Your task to perform on an android device: check storage Image 0: 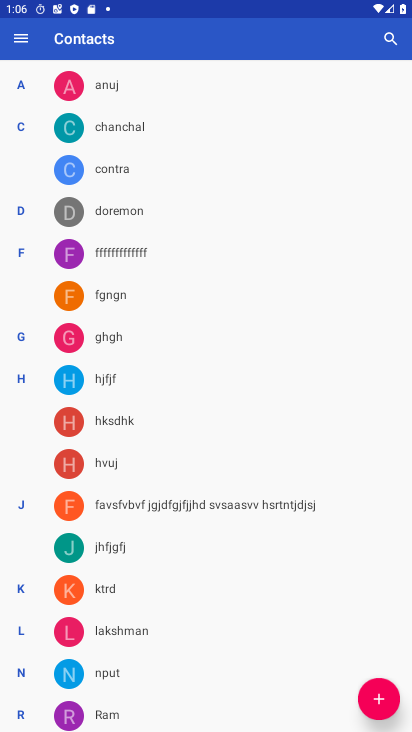
Step 0: press home button
Your task to perform on an android device: check storage Image 1: 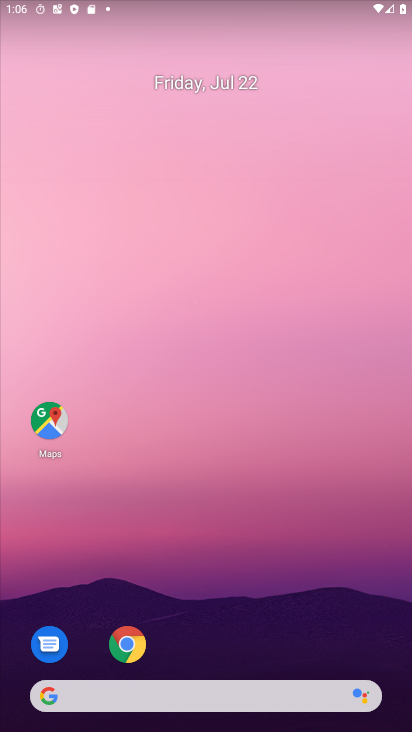
Step 1: drag from (171, 675) to (214, 139)
Your task to perform on an android device: check storage Image 2: 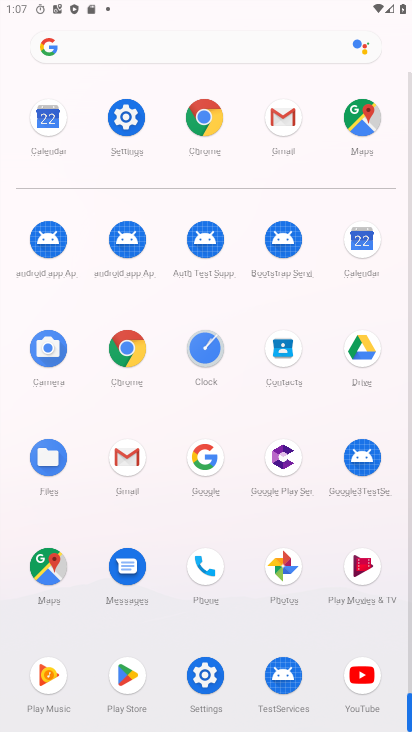
Step 2: click (133, 141)
Your task to perform on an android device: check storage Image 3: 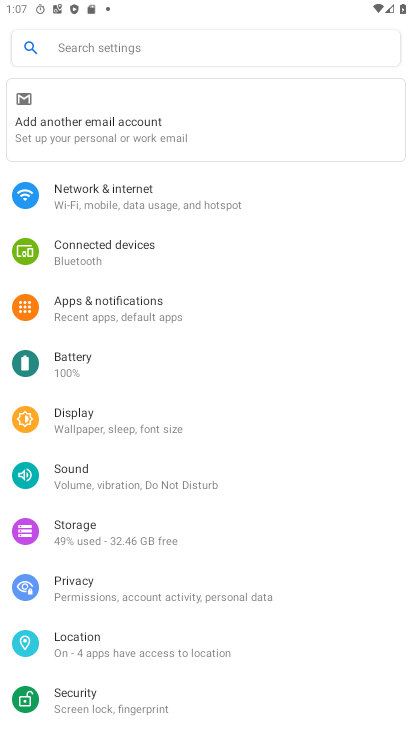
Step 3: click (103, 541)
Your task to perform on an android device: check storage Image 4: 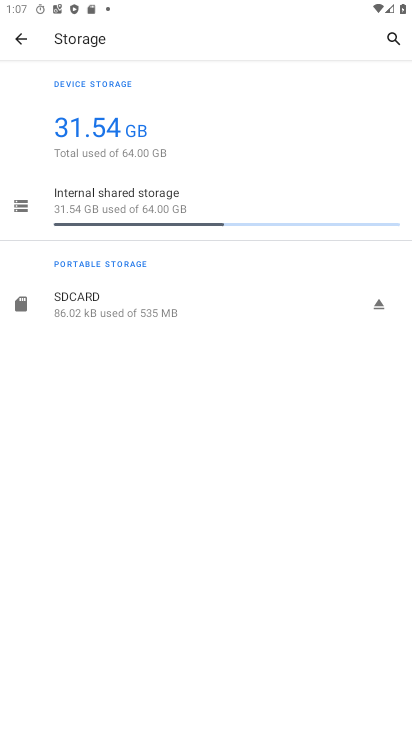
Step 4: click (178, 208)
Your task to perform on an android device: check storage Image 5: 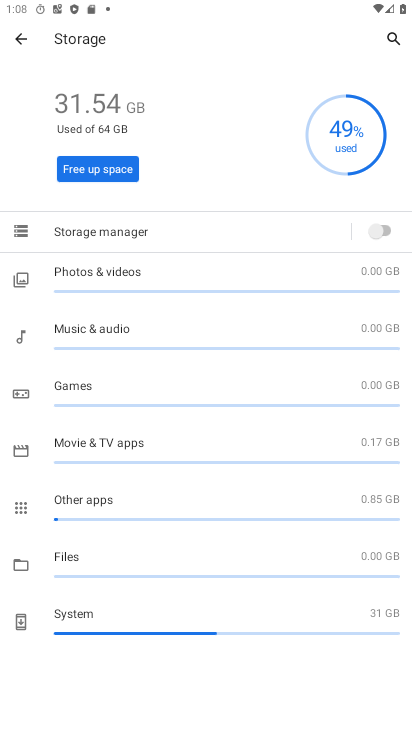
Step 5: task complete